Your task to perform on an android device: Go to Yahoo.com Image 0: 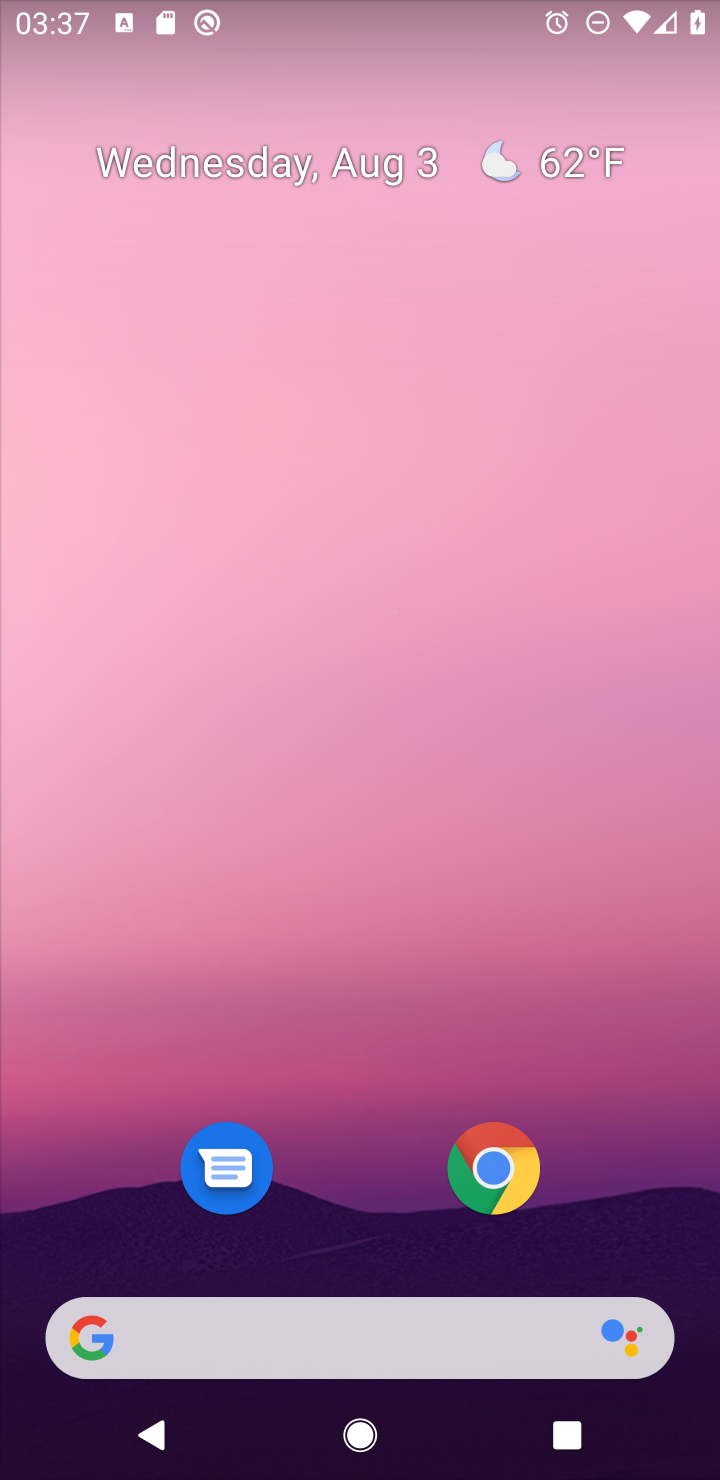
Step 0: click (495, 1171)
Your task to perform on an android device: Go to Yahoo.com Image 1: 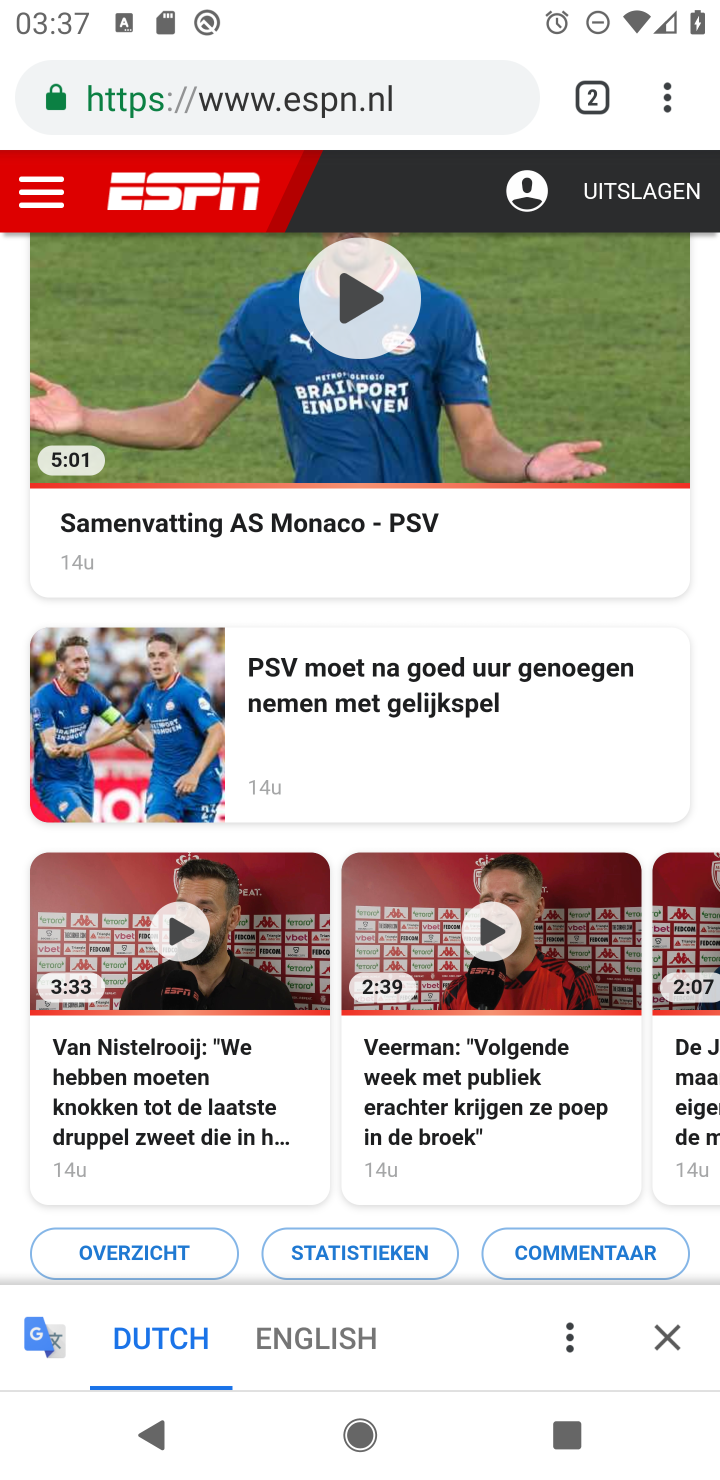
Step 1: click (461, 105)
Your task to perform on an android device: Go to Yahoo.com Image 2: 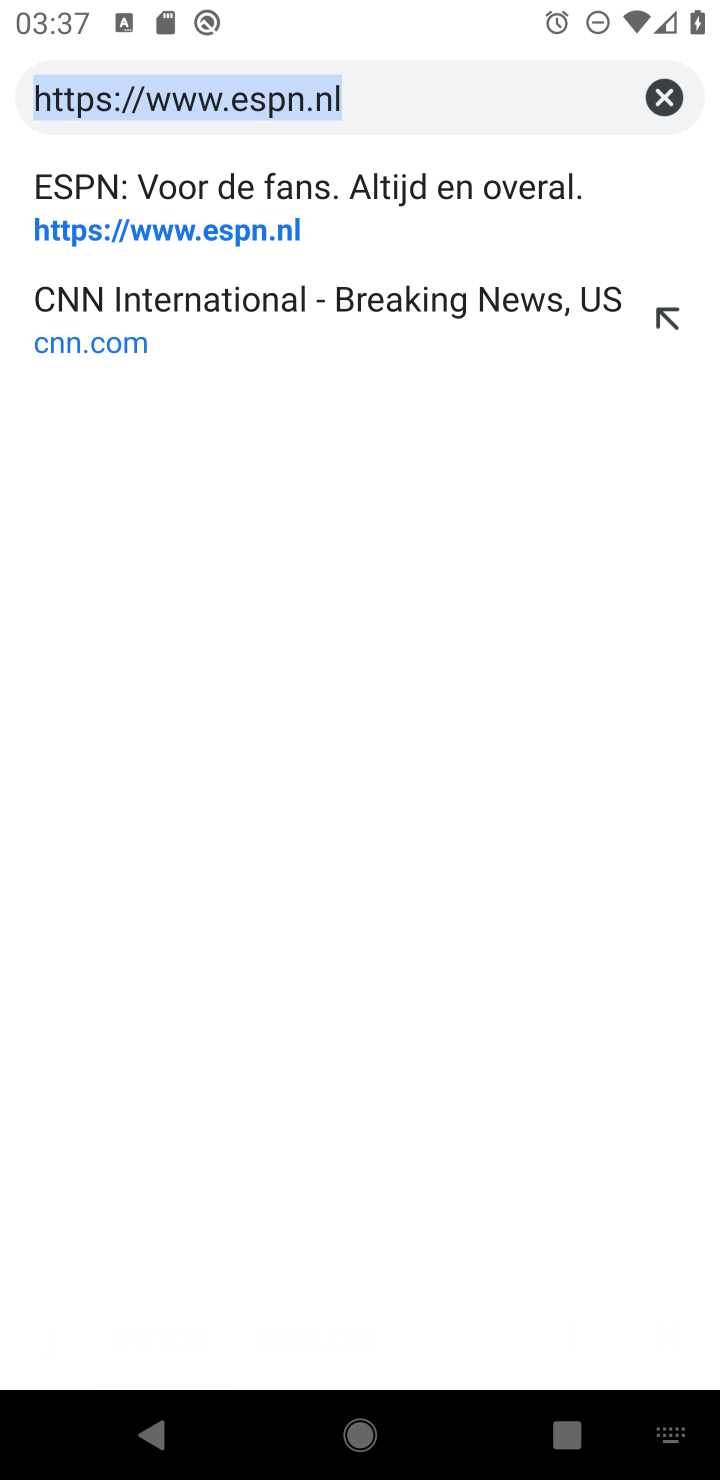
Step 2: click (660, 103)
Your task to perform on an android device: Go to Yahoo.com Image 3: 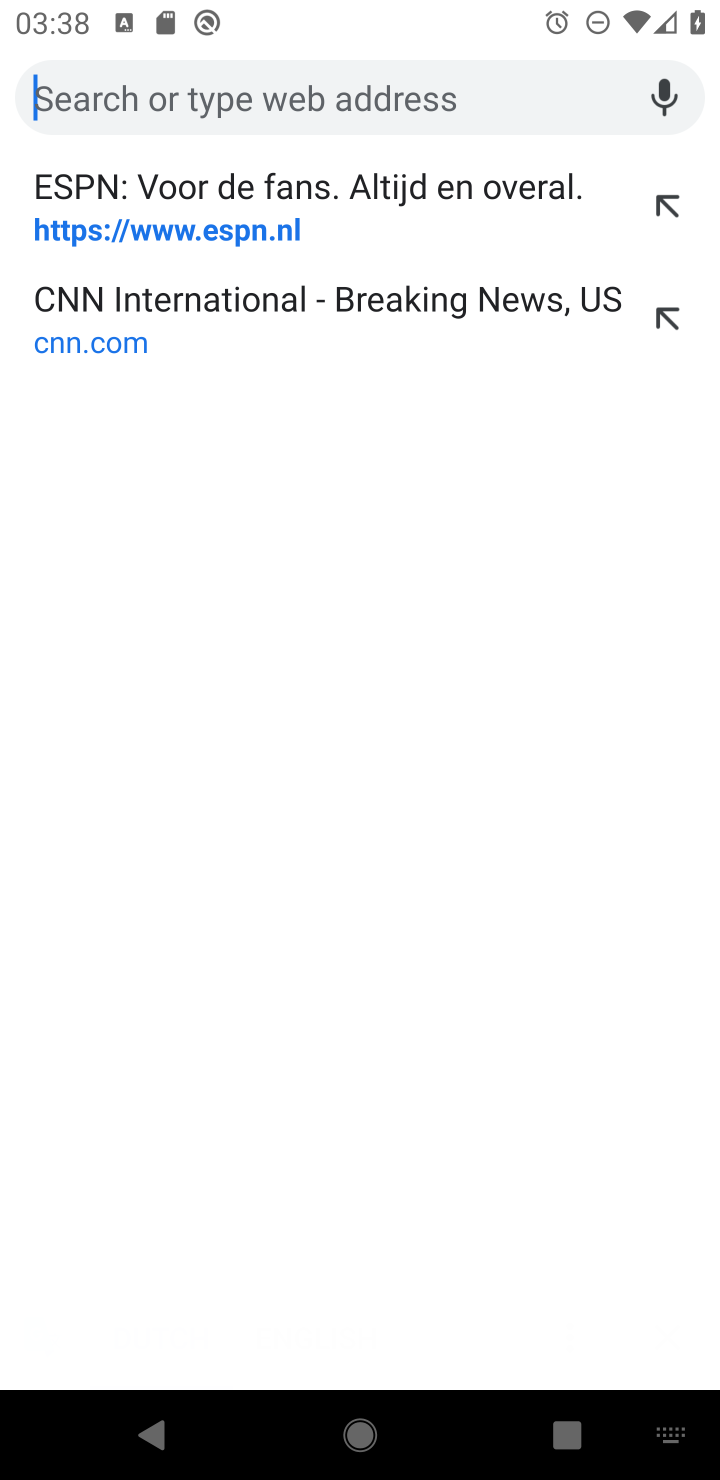
Step 3: type "Yahoo.com"
Your task to perform on an android device: Go to Yahoo.com Image 4: 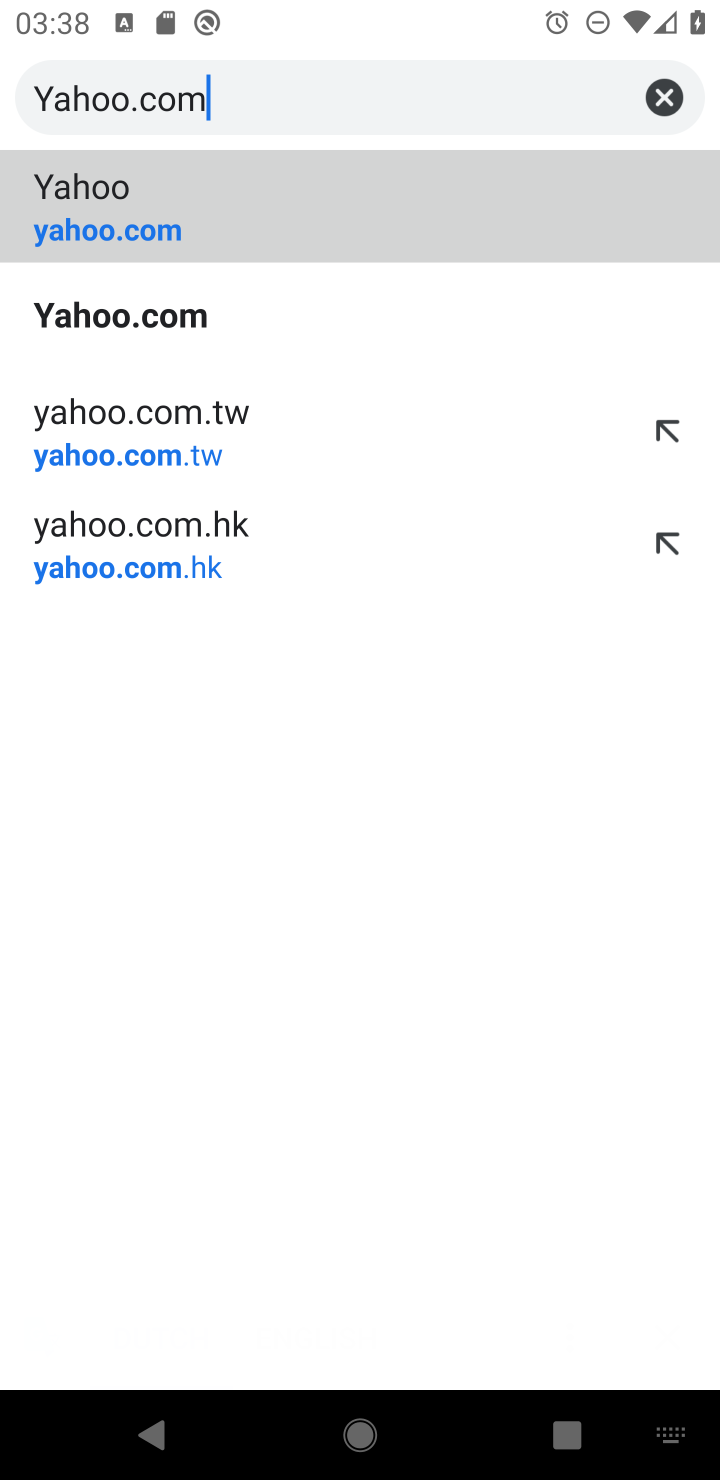
Step 4: click (103, 194)
Your task to perform on an android device: Go to Yahoo.com Image 5: 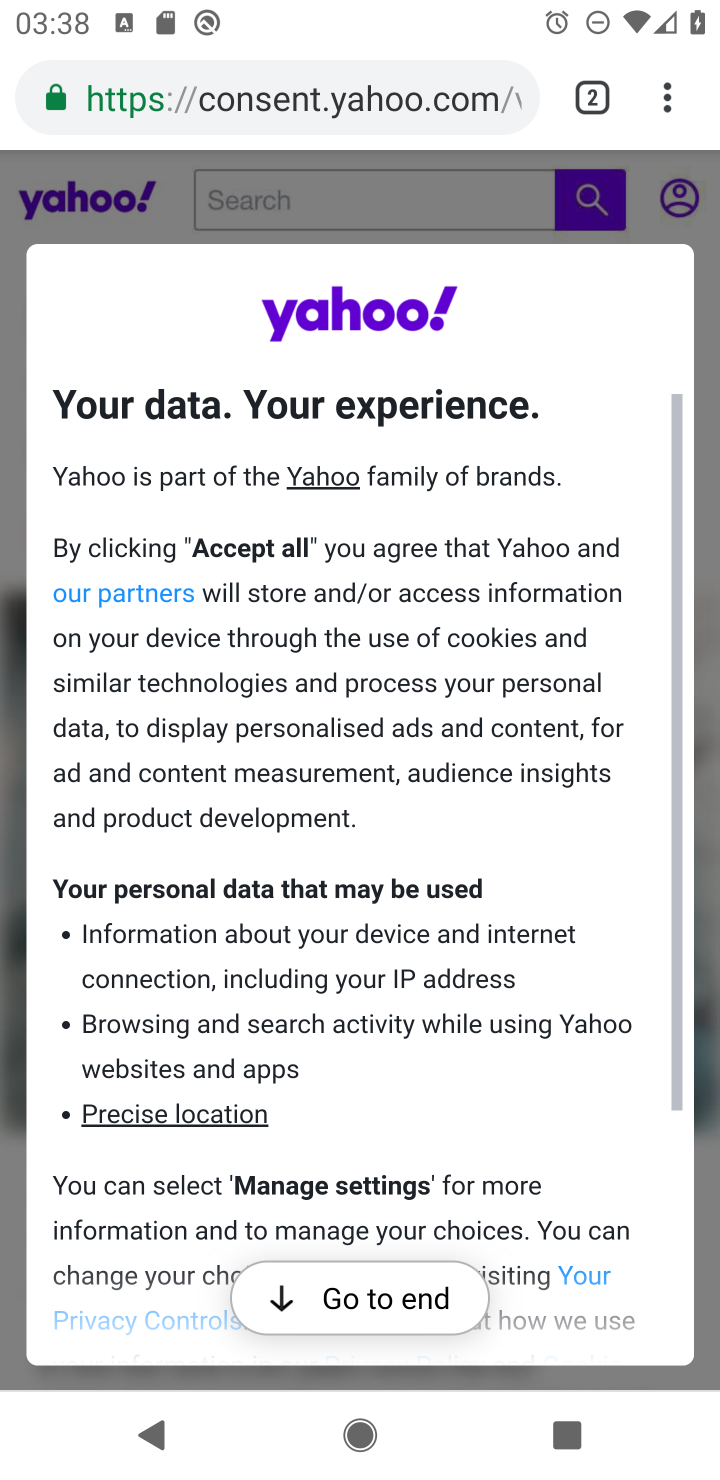
Step 5: click (279, 1303)
Your task to perform on an android device: Go to Yahoo.com Image 6: 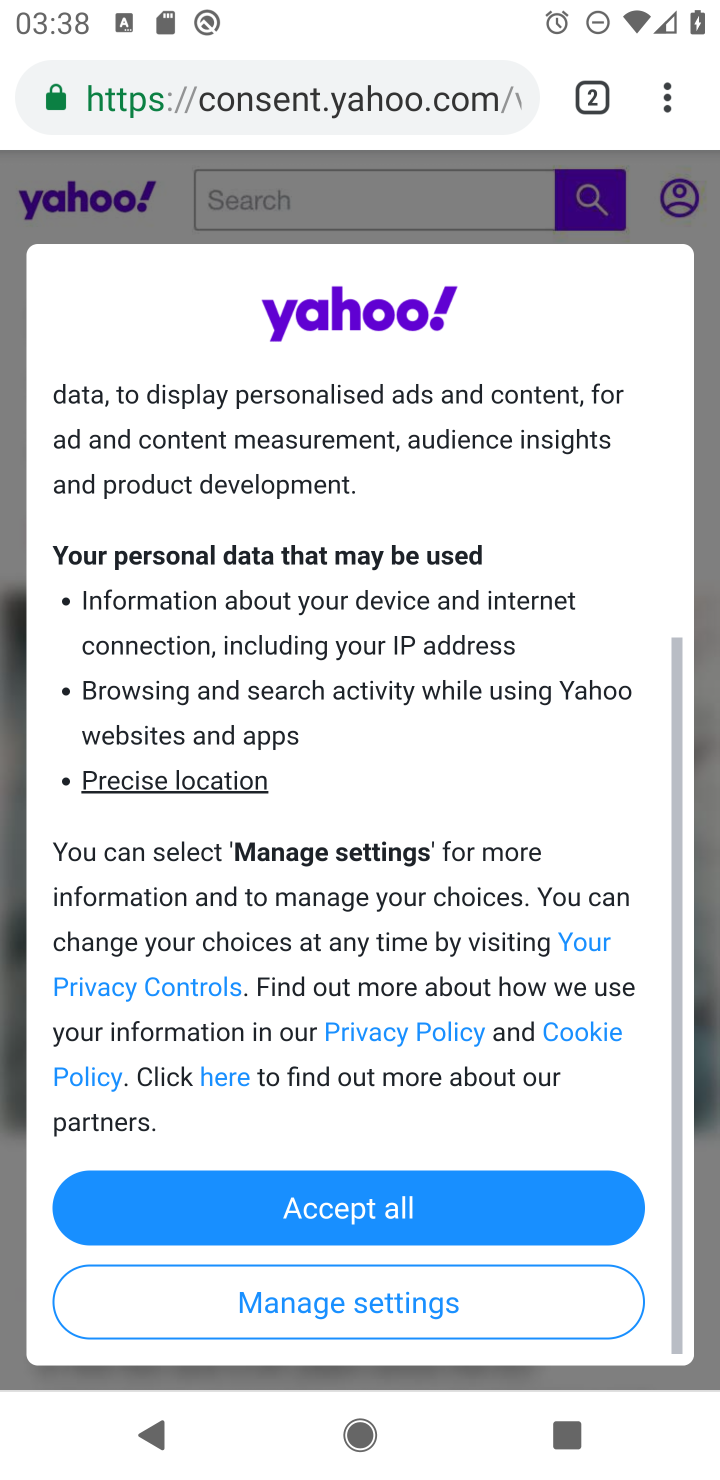
Step 6: click (334, 1202)
Your task to perform on an android device: Go to Yahoo.com Image 7: 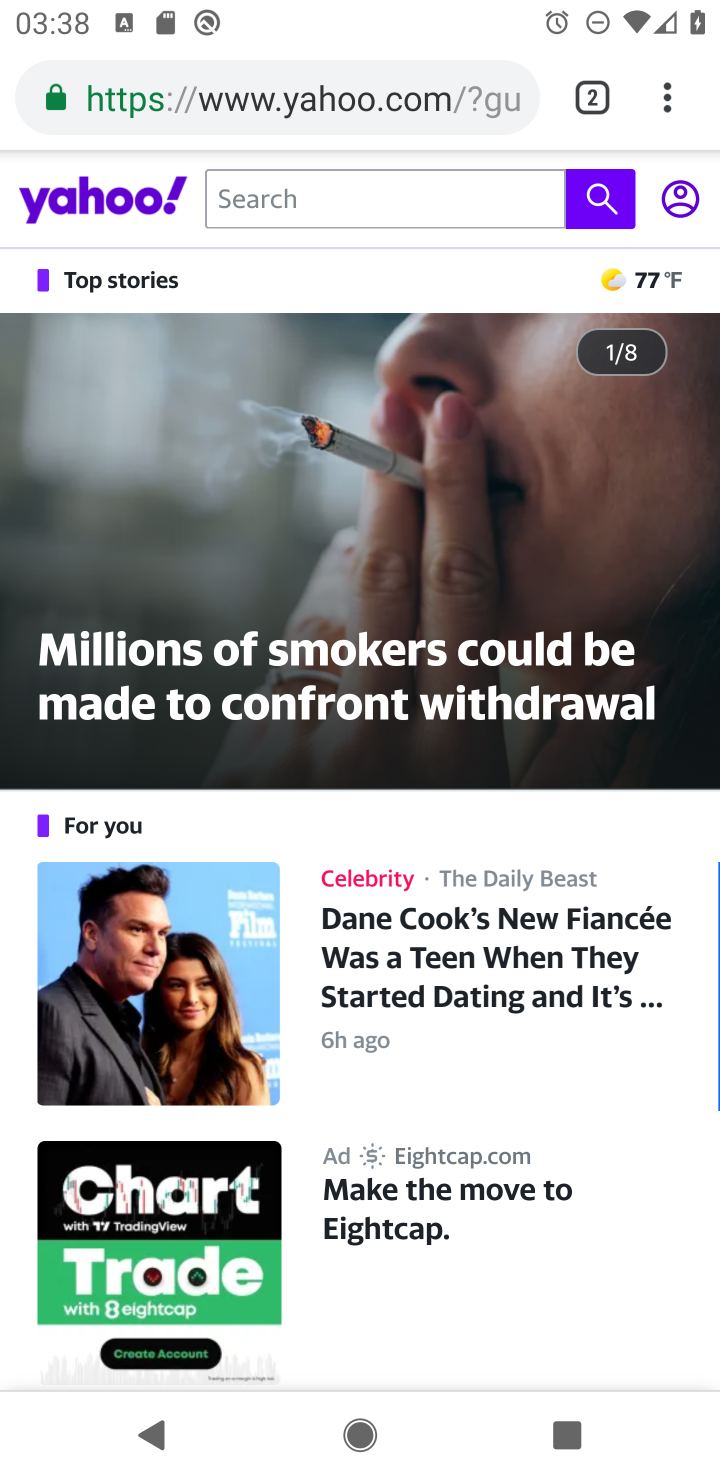
Step 7: task complete